Your task to perform on an android device: open chrome privacy settings Image 0: 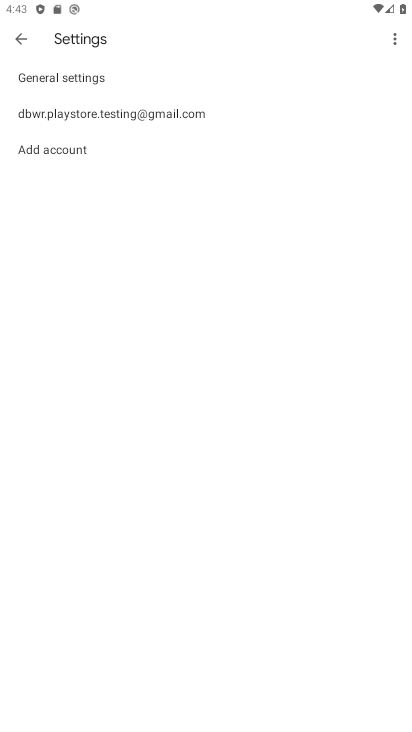
Step 0: press home button
Your task to perform on an android device: open chrome privacy settings Image 1: 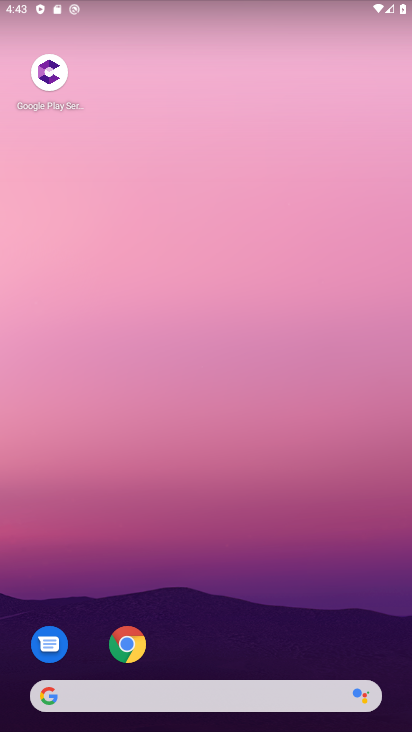
Step 1: drag from (211, 656) to (220, 40)
Your task to perform on an android device: open chrome privacy settings Image 2: 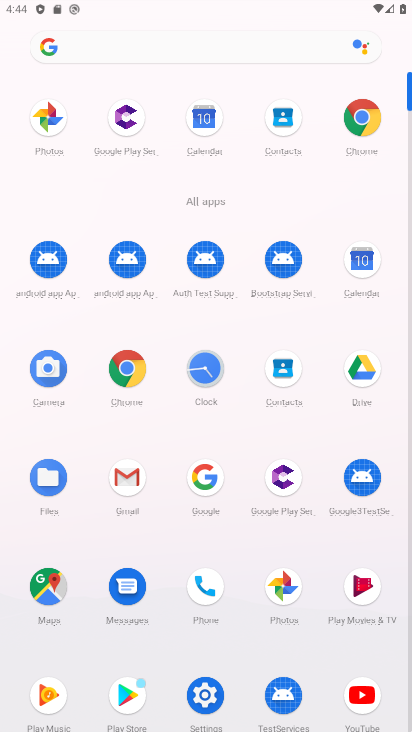
Step 2: click (357, 114)
Your task to perform on an android device: open chrome privacy settings Image 3: 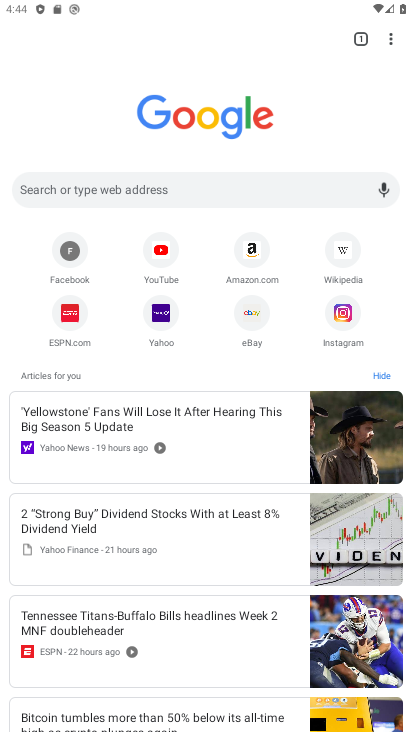
Step 3: click (393, 42)
Your task to perform on an android device: open chrome privacy settings Image 4: 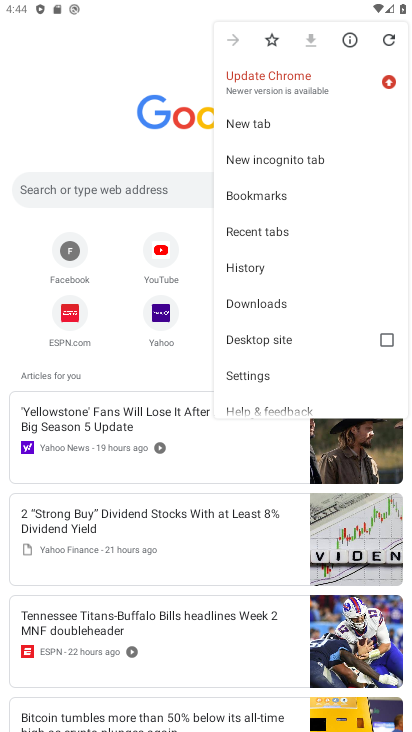
Step 4: click (281, 378)
Your task to perform on an android device: open chrome privacy settings Image 5: 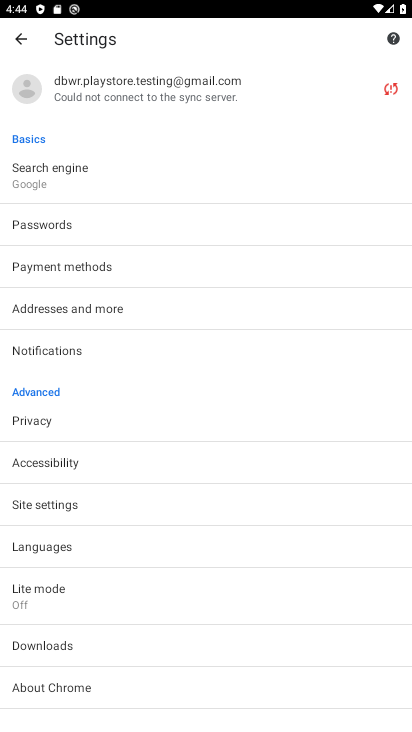
Step 5: click (65, 420)
Your task to perform on an android device: open chrome privacy settings Image 6: 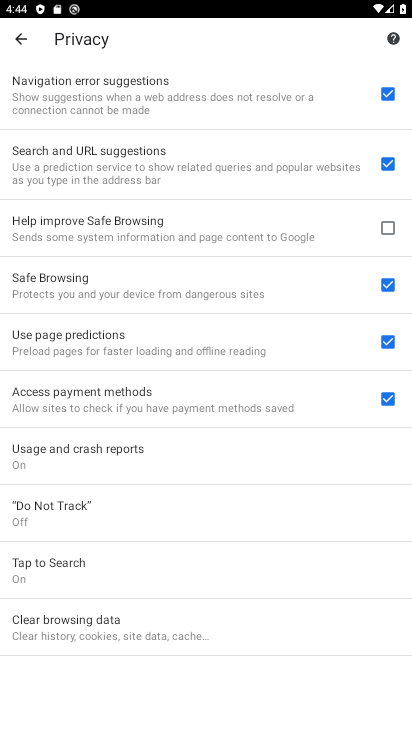
Step 6: task complete